Your task to perform on an android device: Open maps Image 0: 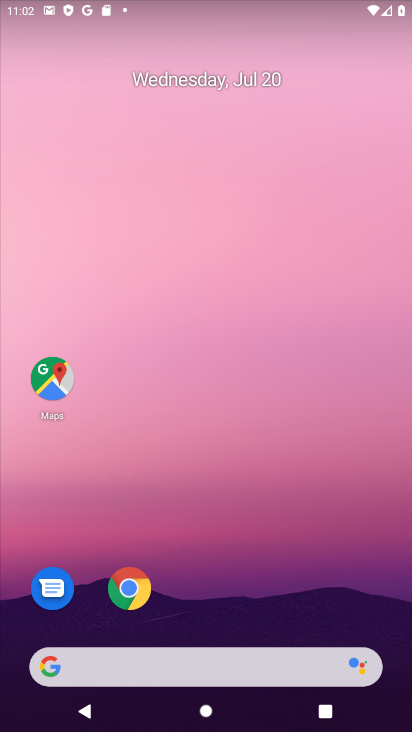
Step 0: drag from (192, 597) to (155, 144)
Your task to perform on an android device: Open maps Image 1: 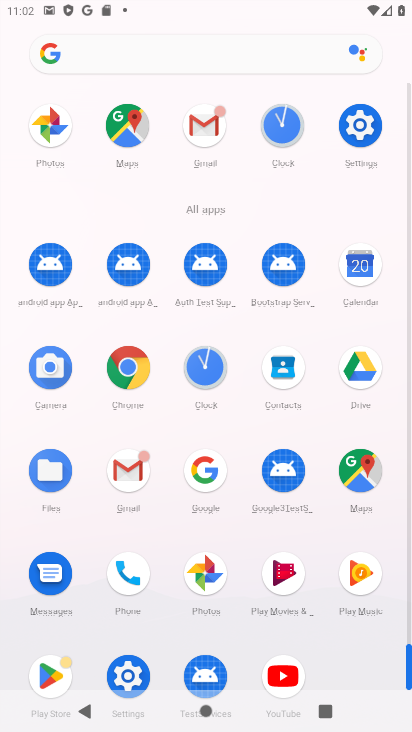
Step 1: click (351, 474)
Your task to perform on an android device: Open maps Image 2: 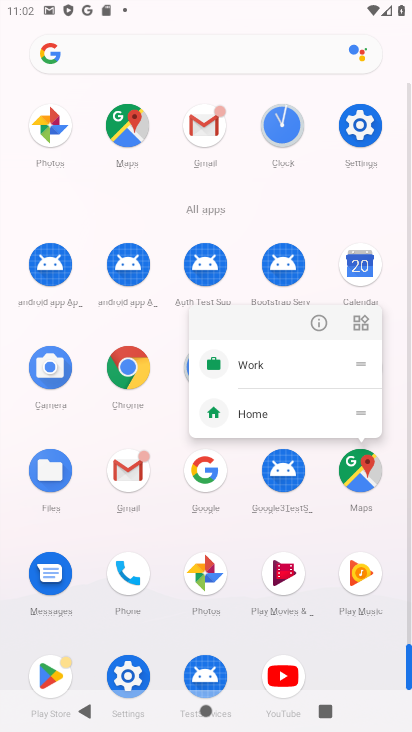
Step 2: click (313, 319)
Your task to perform on an android device: Open maps Image 3: 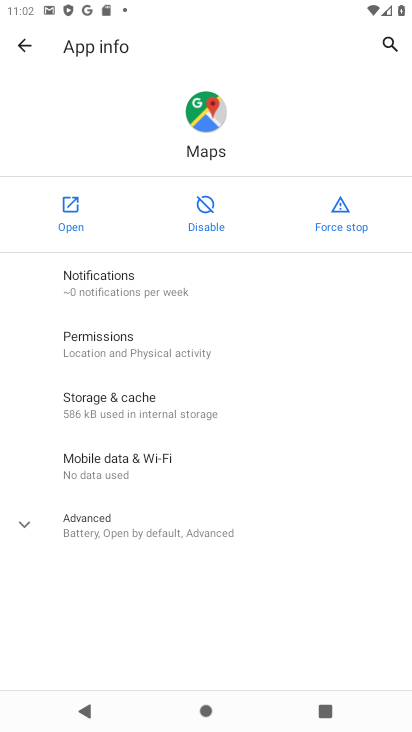
Step 3: click (74, 212)
Your task to perform on an android device: Open maps Image 4: 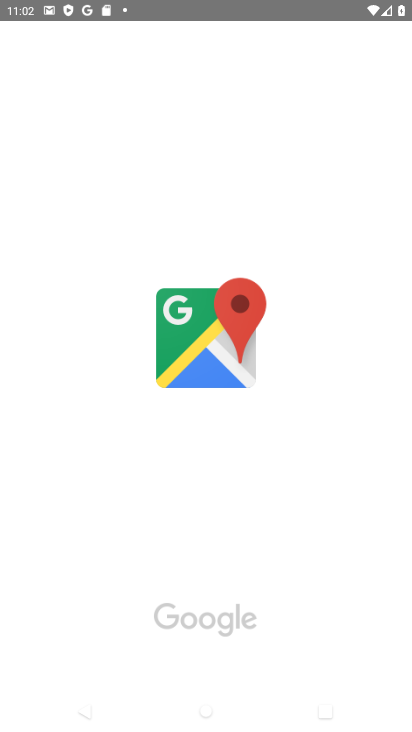
Step 4: task complete